Your task to perform on an android device: read, delete, or share a saved page in the chrome app Image 0: 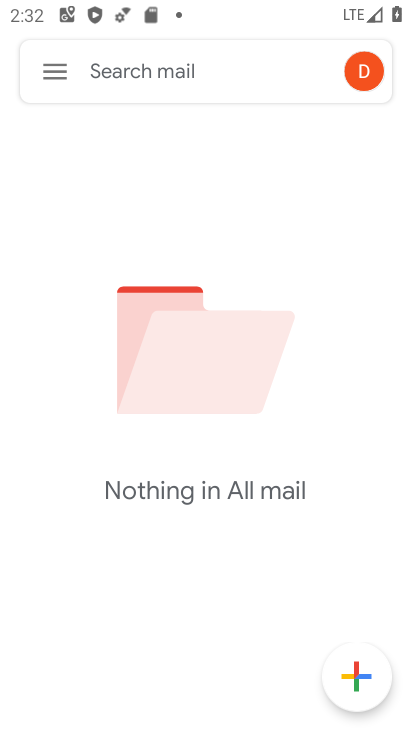
Step 0: press home button
Your task to perform on an android device: read, delete, or share a saved page in the chrome app Image 1: 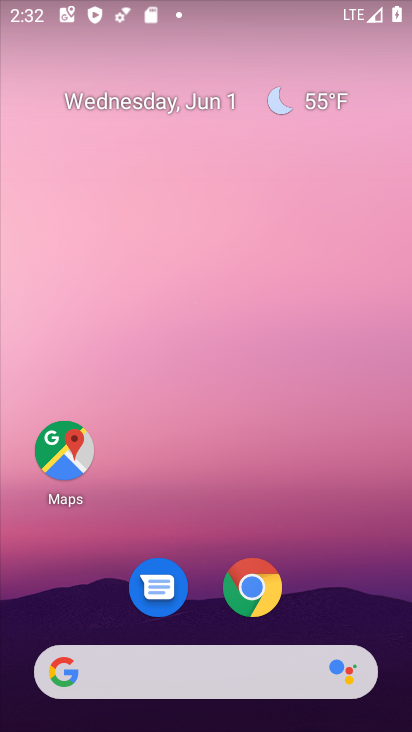
Step 1: click (239, 592)
Your task to perform on an android device: read, delete, or share a saved page in the chrome app Image 2: 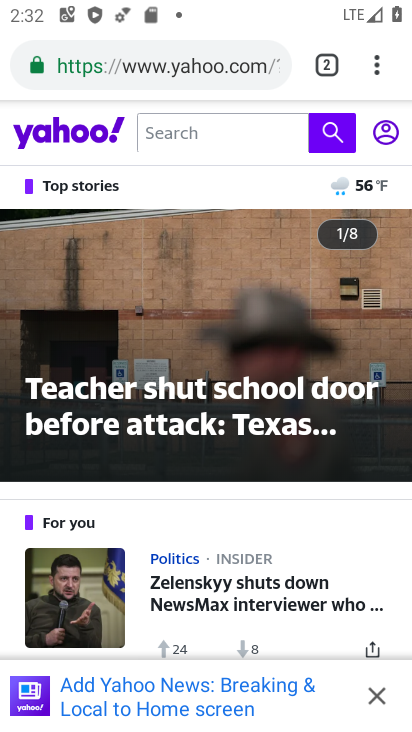
Step 2: drag from (368, 58) to (154, 425)
Your task to perform on an android device: read, delete, or share a saved page in the chrome app Image 3: 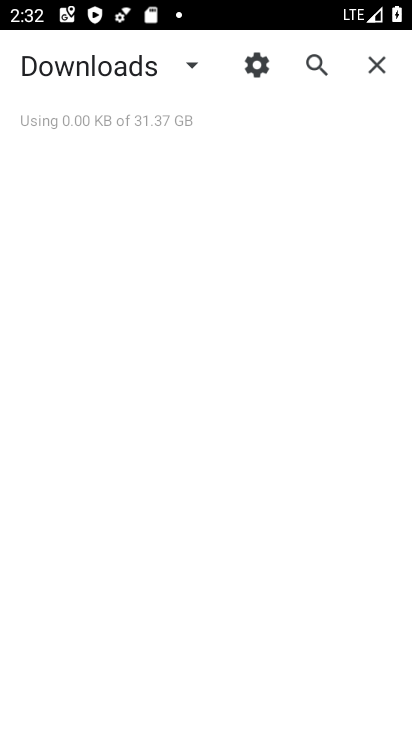
Step 3: click (194, 69)
Your task to perform on an android device: read, delete, or share a saved page in the chrome app Image 4: 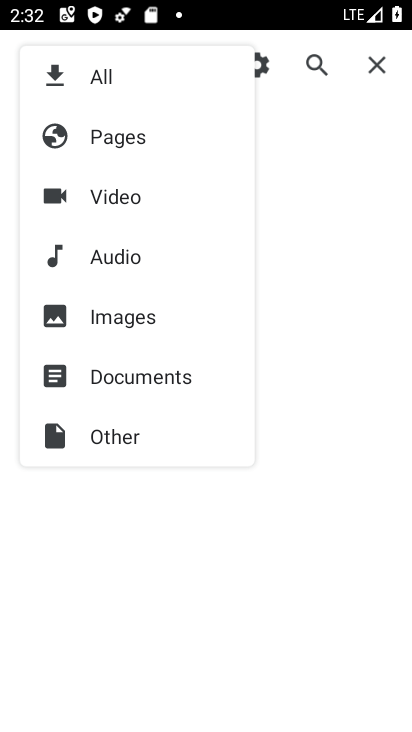
Step 4: click (98, 132)
Your task to perform on an android device: read, delete, or share a saved page in the chrome app Image 5: 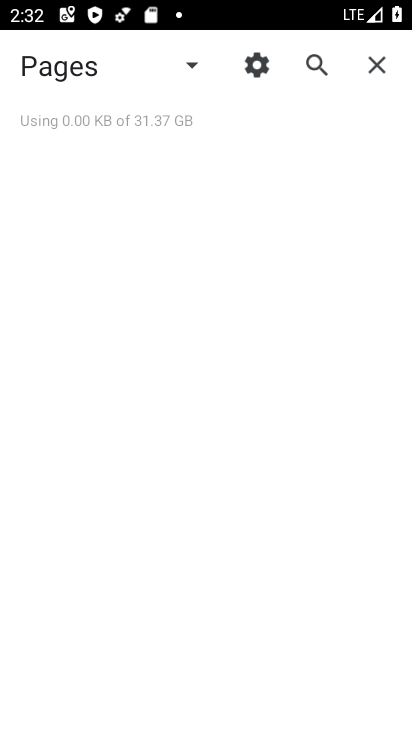
Step 5: task complete